Your task to perform on an android device: Open Chrome and go to settings Image 0: 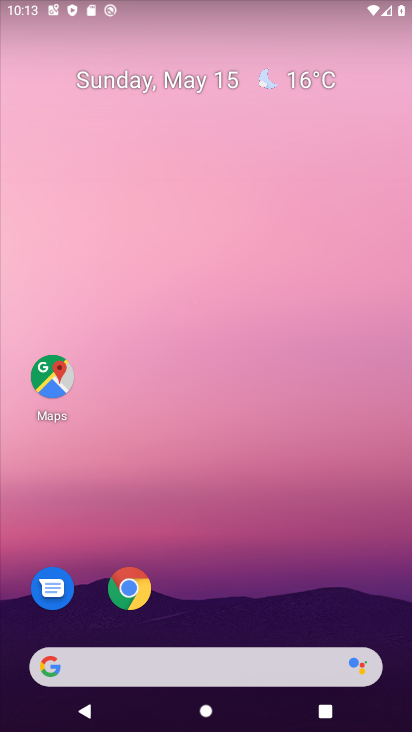
Step 0: click (138, 599)
Your task to perform on an android device: Open Chrome and go to settings Image 1: 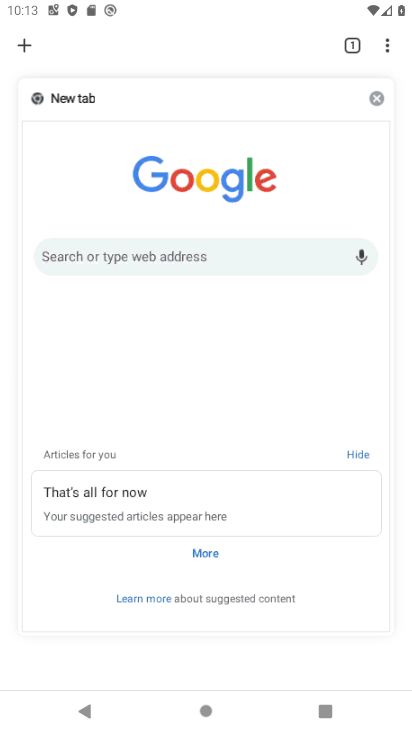
Step 1: click (389, 42)
Your task to perform on an android device: Open Chrome and go to settings Image 2: 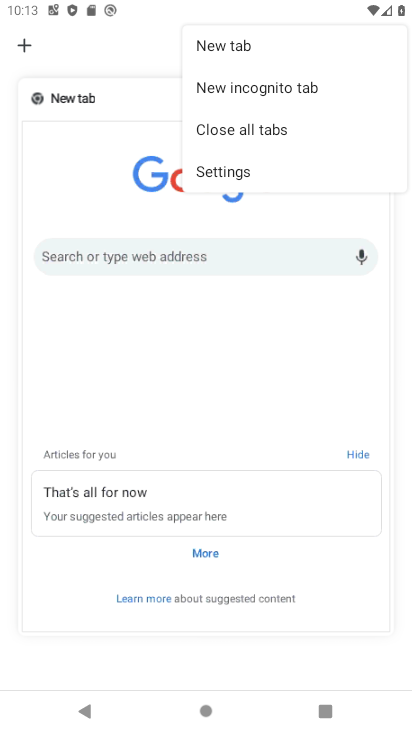
Step 2: click (228, 166)
Your task to perform on an android device: Open Chrome and go to settings Image 3: 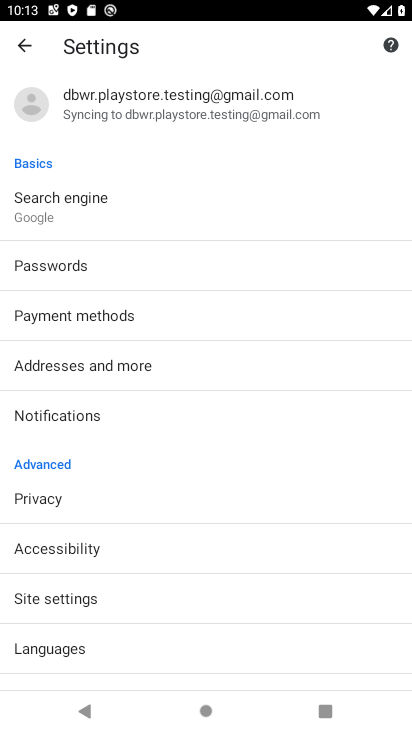
Step 3: task complete